Your task to perform on an android device: Open Android settings Image 0: 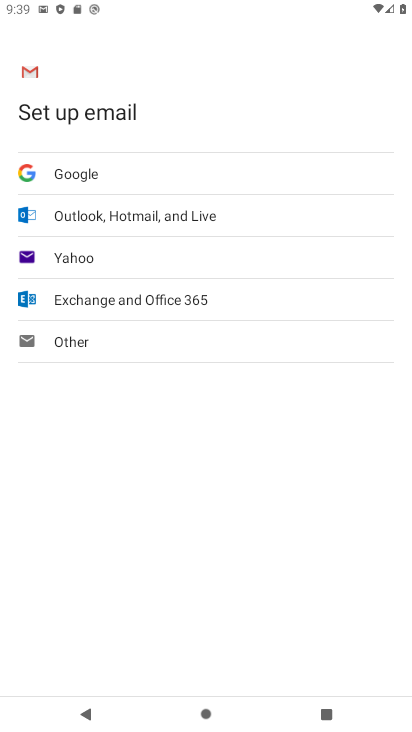
Step 0: press home button
Your task to perform on an android device: Open Android settings Image 1: 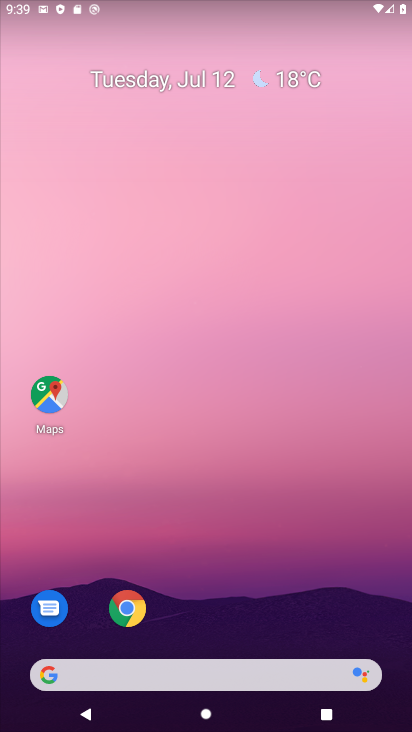
Step 1: drag from (243, 544) to (181, 66)
Your task to perform on an android device: Open Android settings Image 2: 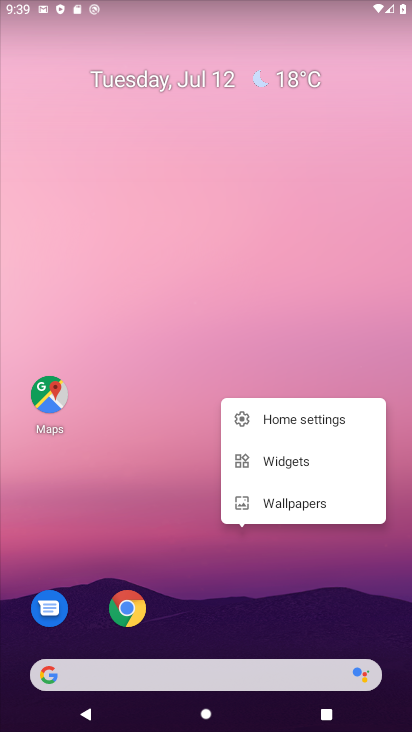
Step 2: click (140, 352)
Your task to perform on an android device: Open Android settings Image 3: 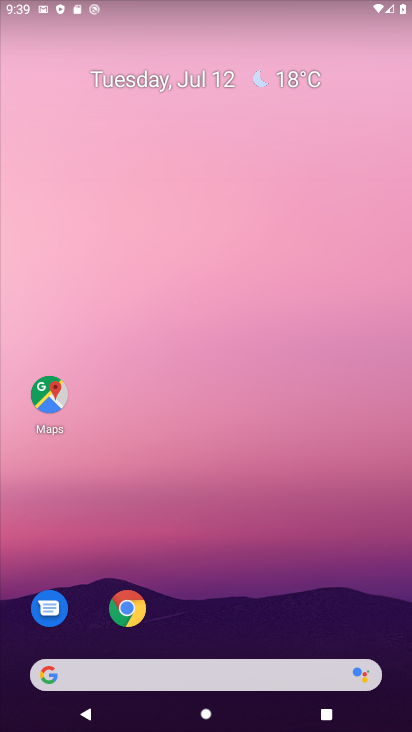
Step 3: drag from (215, 528) to (175, 172)
Your task to perform on an android device: Open Android settings Image 4: 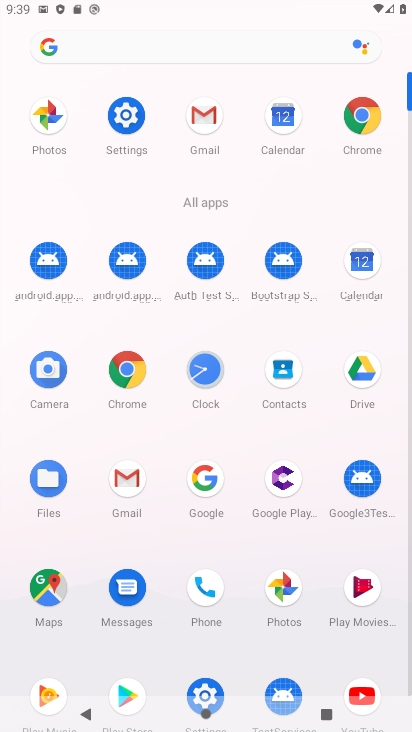
Step 4: click (129, 113)
Your task to perform on an android device: Open Android settings Image 5: 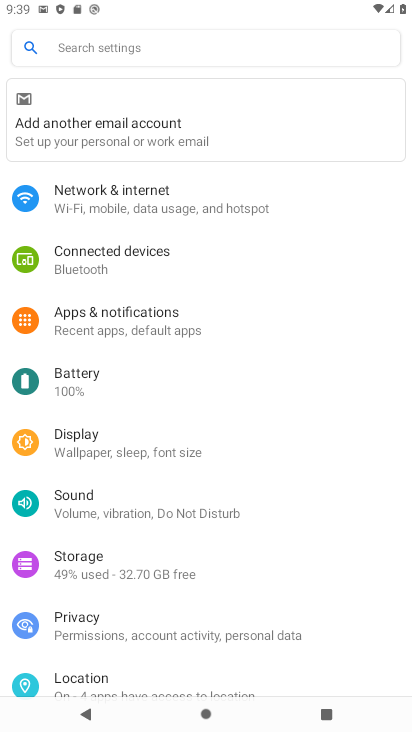
Step 5: task complete